Your task to perform on an android device: install app "Move to iOS" Image 0: 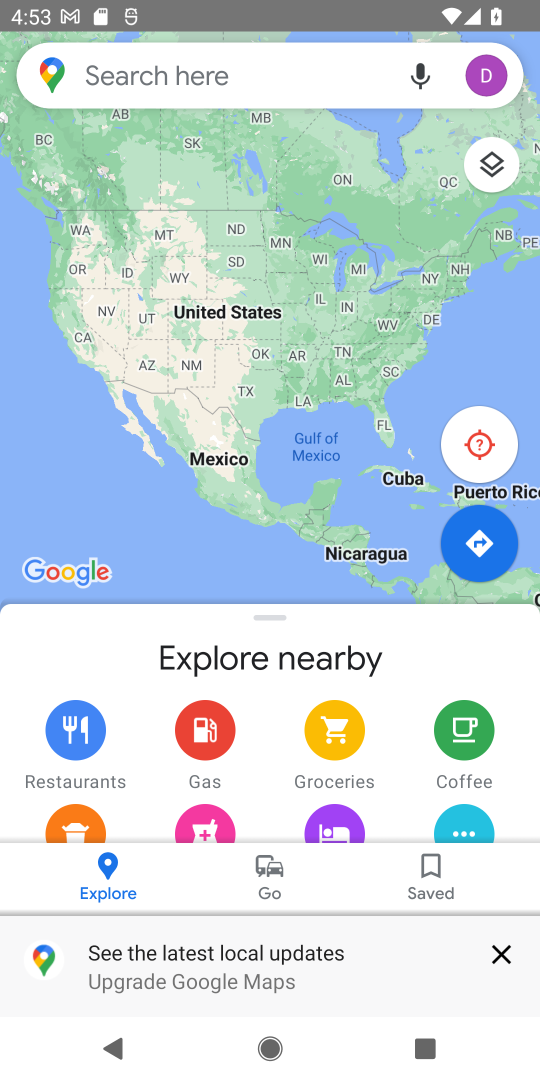
Step 0: press home button
Your task to perform on an android device: install app "Move to iOS" Image 1: 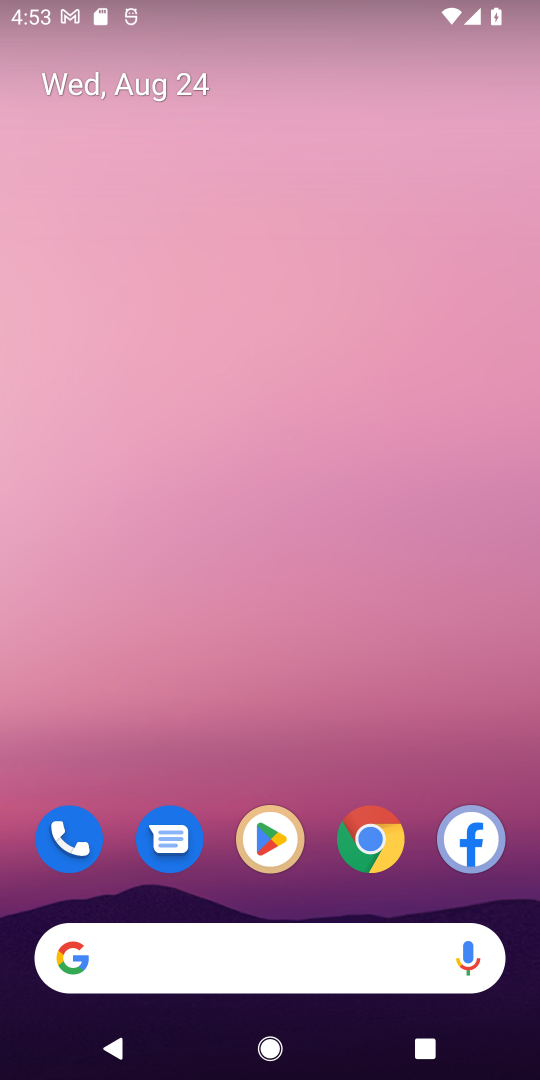
Step 1: click (271, 843)
Your task to perform on an android device: install app "Move to iOS" Image 2: 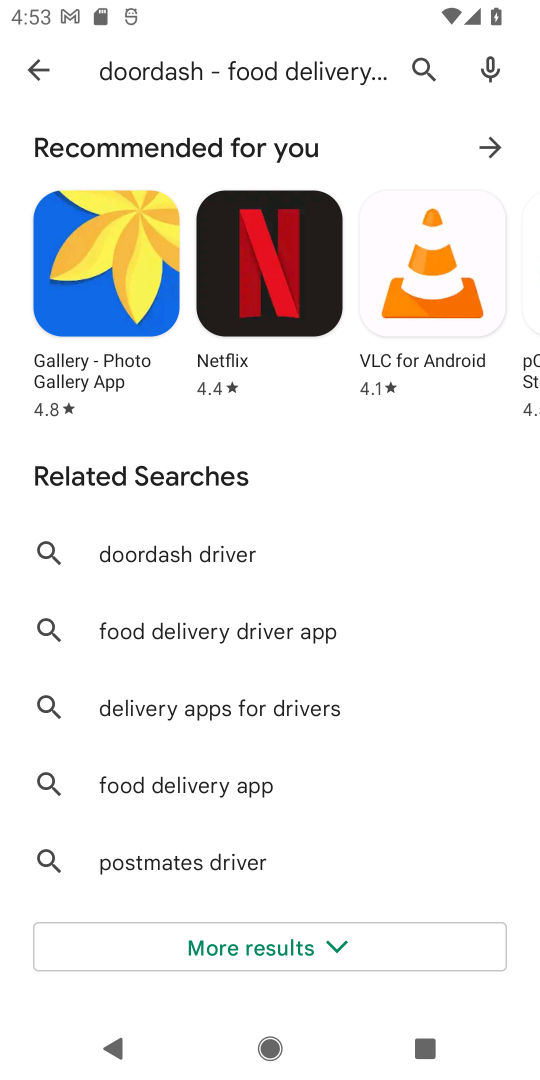
Step 2: click (420, 60)
Your task to perform on an android device: install app "Move to iOS" Image 3: 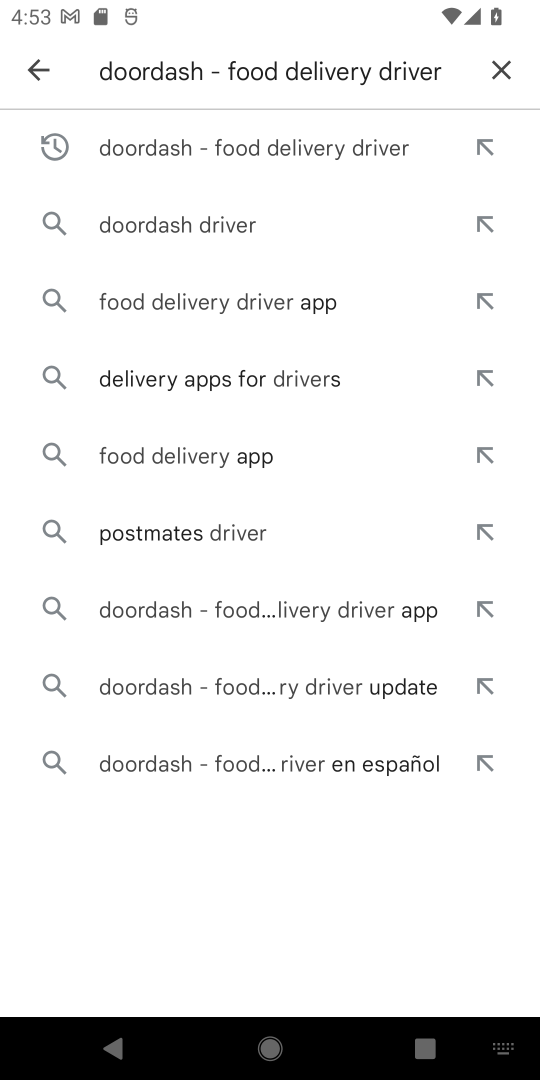
Step 3: click (501, 62)
Your task to perform on an android device: install app "Move to iOS" Image 4: 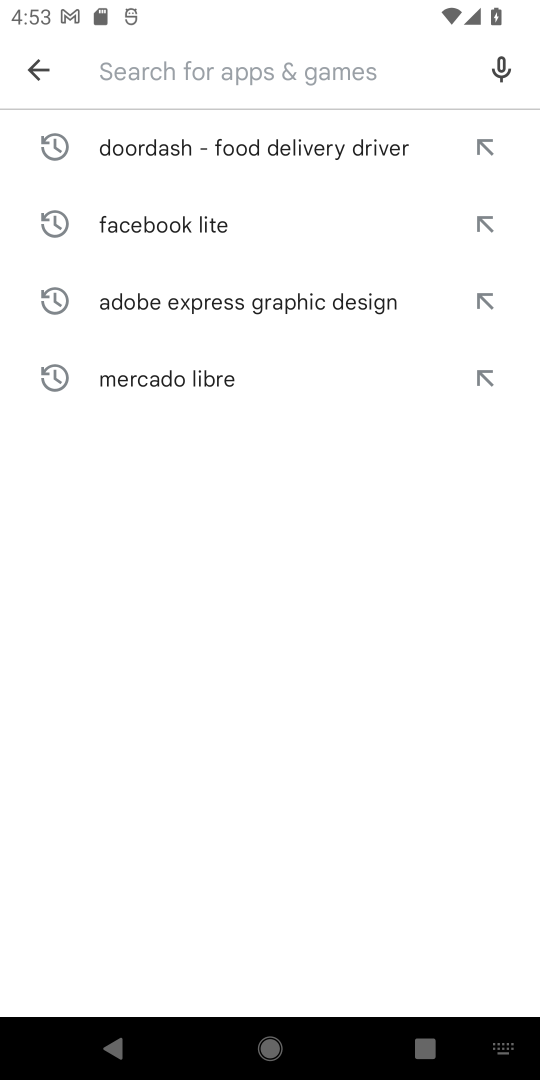
Step 4: type "Move to iOS"
Your task to perform on an android device: install app "Move to iOS" Image 5: 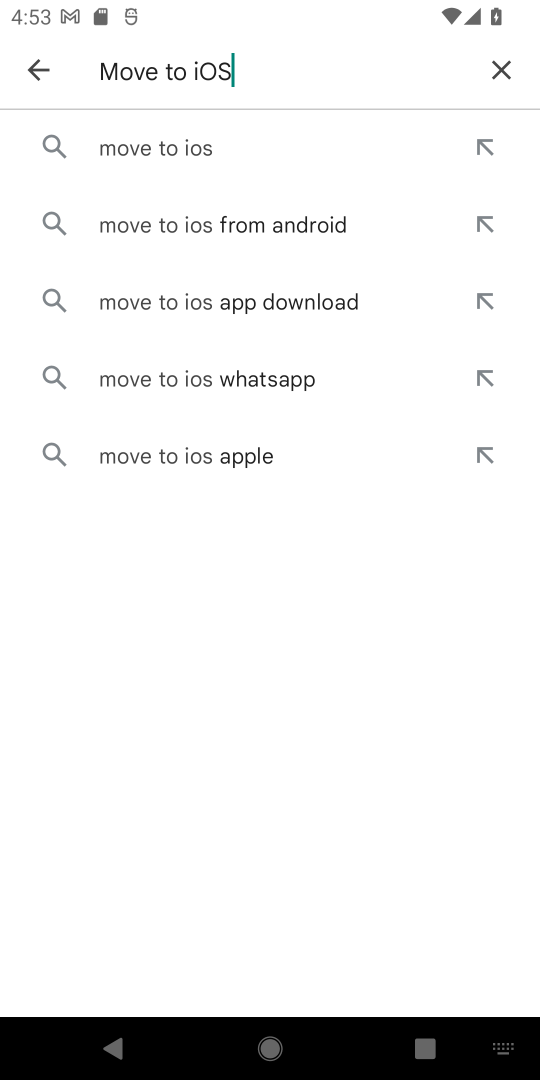
Step 5: click (189, 151)
Your task to perform on an android device: install app "Move to iOS" Image 6: 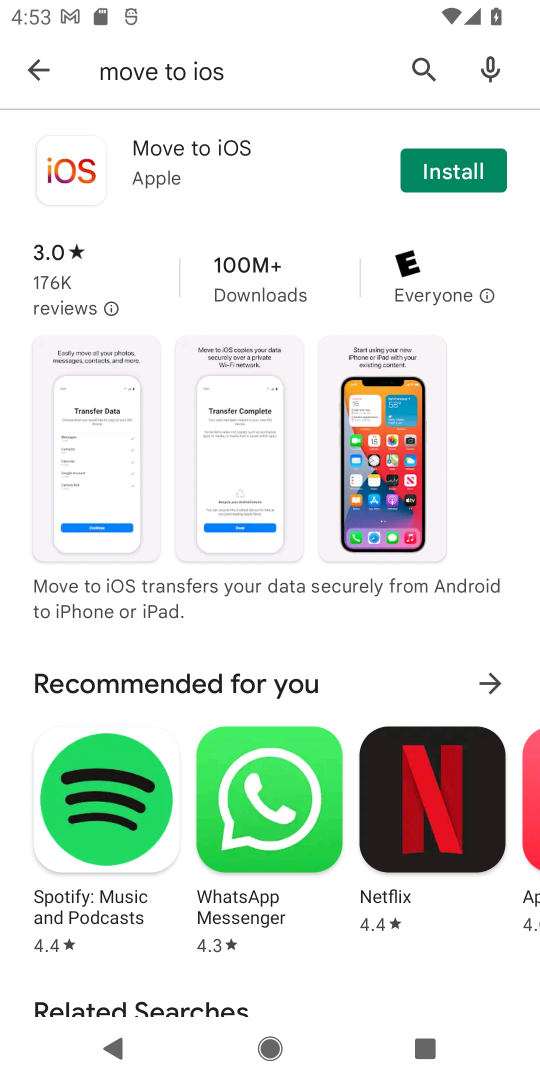
Step 6: click (442, 180)
Your task to perform on an android device: install app "Move to iOS" Image 7: 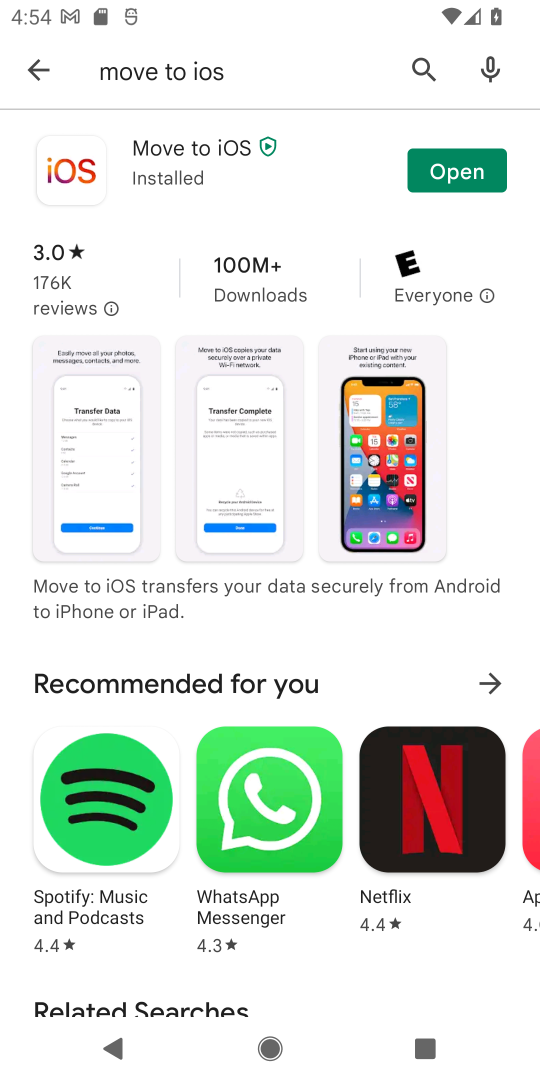
Step 7: task complete